Your task to perform on an android device: refresh tabs in the chrome app Image 0: 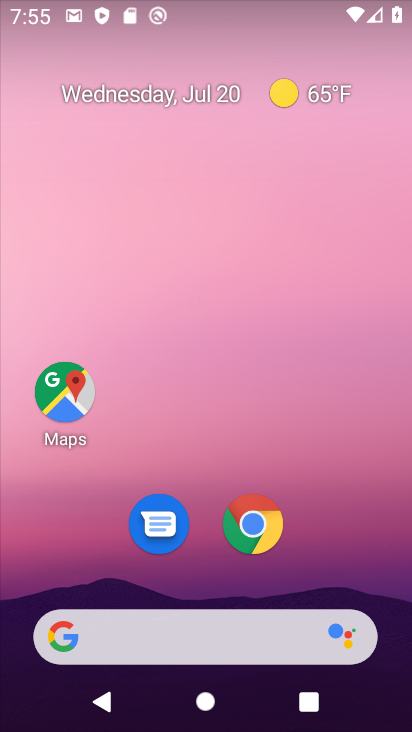
Step 0: click (265, 529)
Your task to perform on an android device: refresh tabs in the chrome app Image 1: 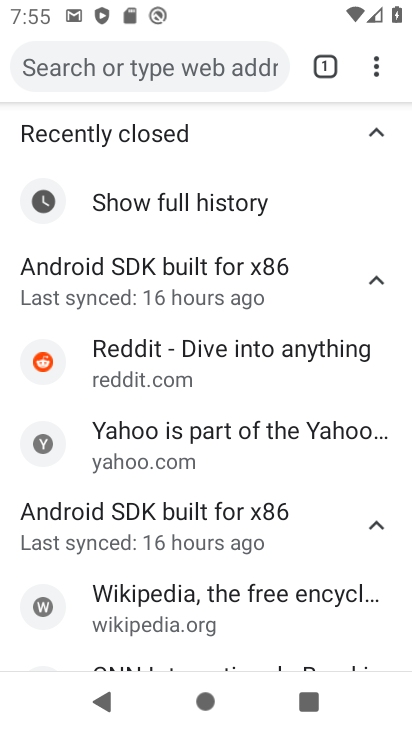
Step 1: click (374, 74)
Your task to perform on an android device: refresh tabs in the chrome app Image 2: 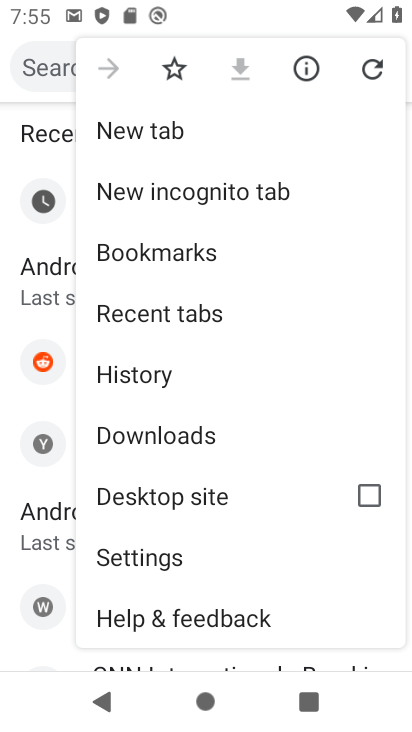
Step 2: click (374, 74)
Your task to perform on an android device: refresh tabs in the chrome app Image 3: 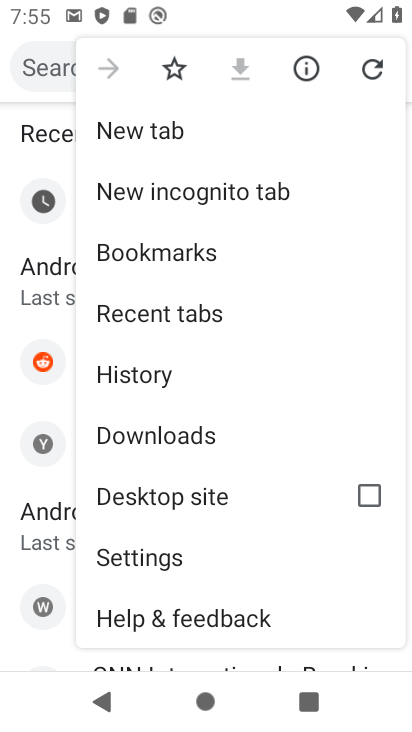
Step 3: click (374, 74)
Your task to perform on an android device: refresh tabs in the chrome app Image 4: 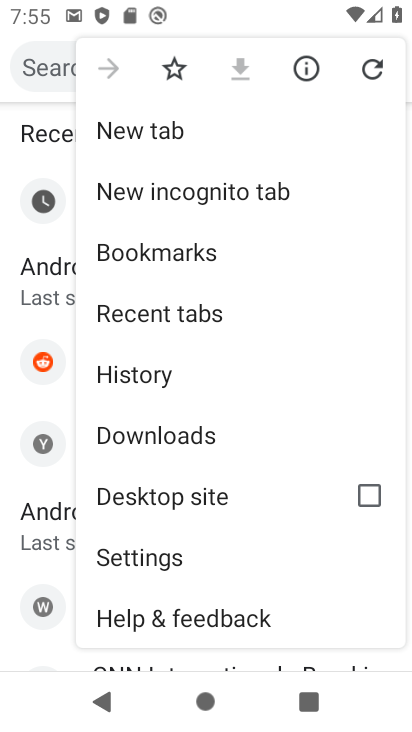
Step 4: click (362, 65)
Your task to perform on an android device: refresh tabs in the chrome app Image 5: 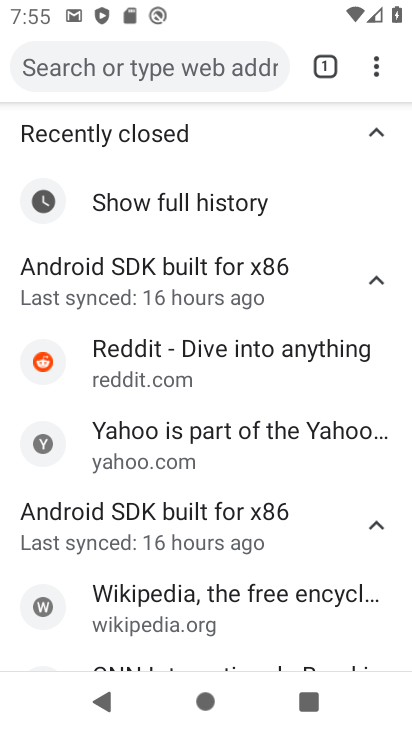
Step 5: task complete